Your task to perform on an android device: Clear all items from cart on ebay.com. Image 0: 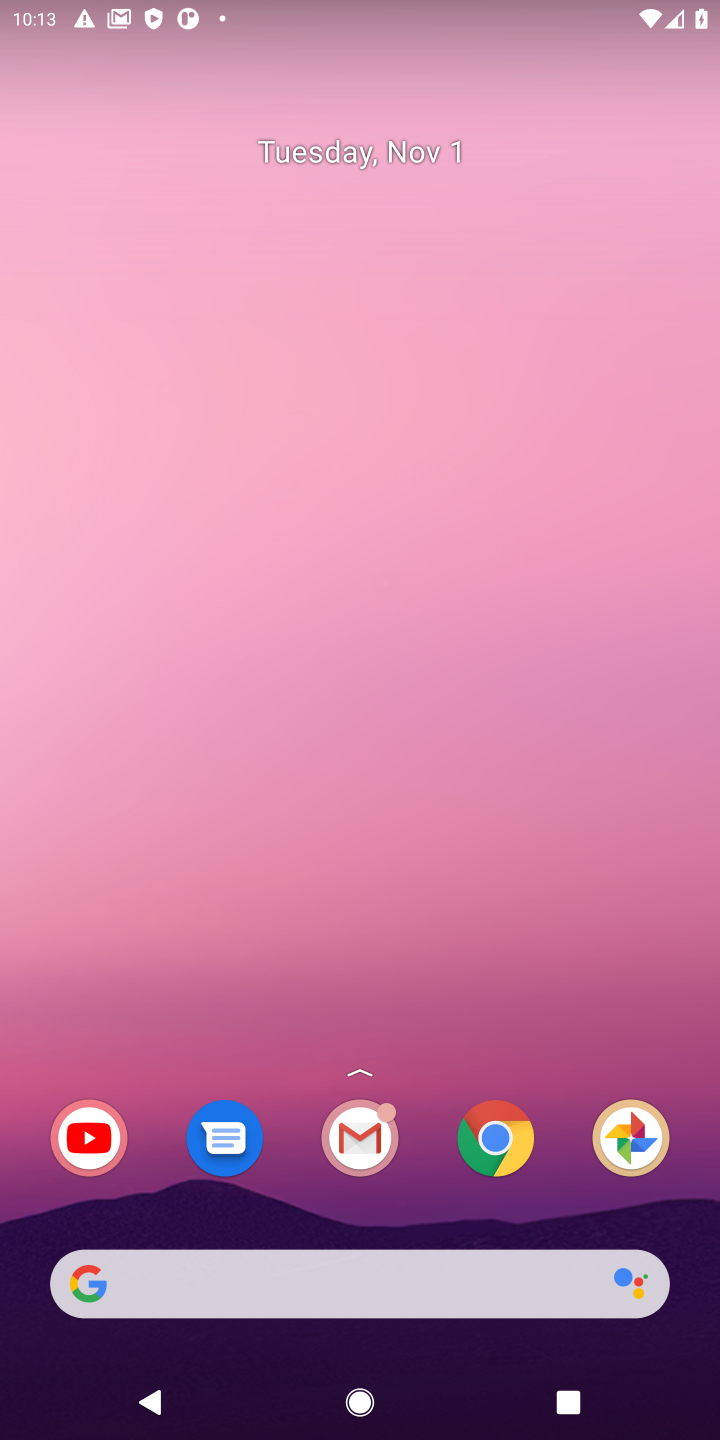
Step 0: click (518, 1145)
Your task to perform on an android device: Clear all items from cart on ebay.com. Image 1: 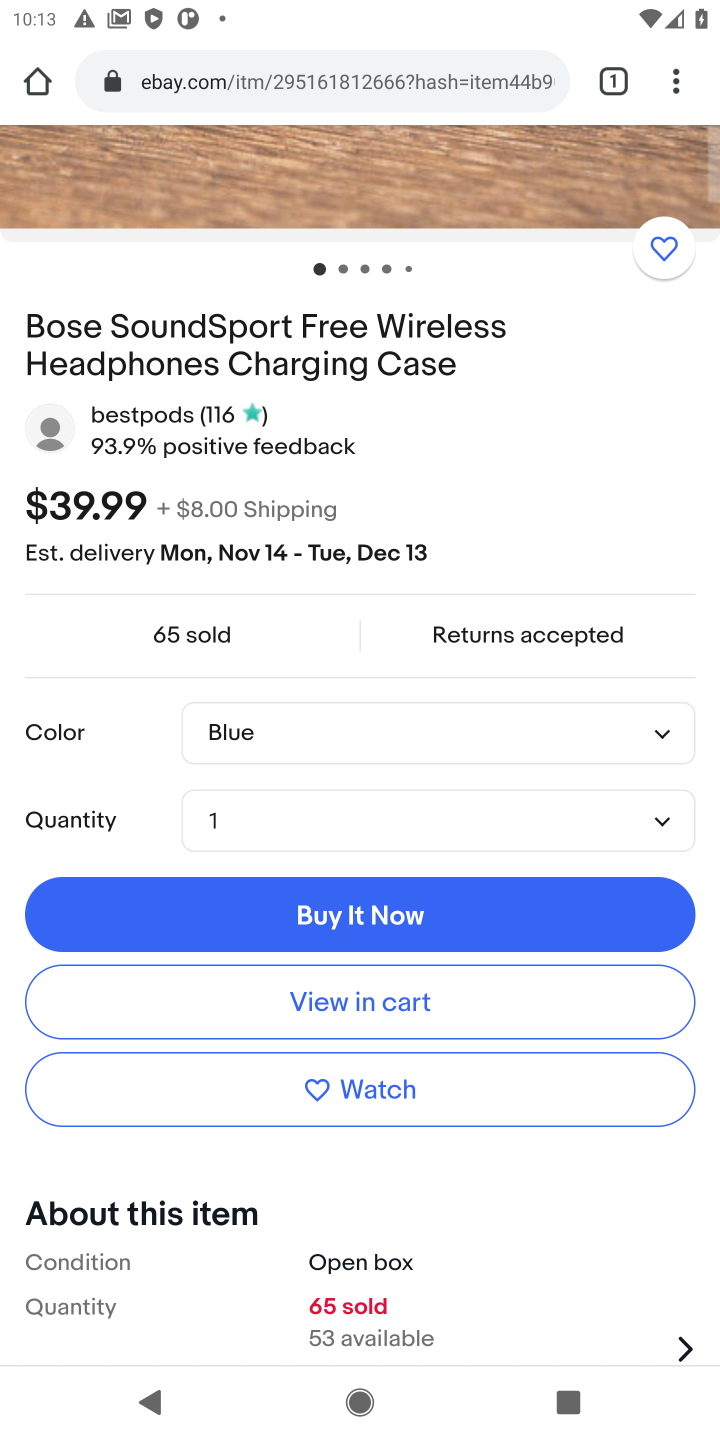
Step 1: click (324, 77)
Your task to perform on an android device: Clear all items from cart on ebay.com. Image 2: 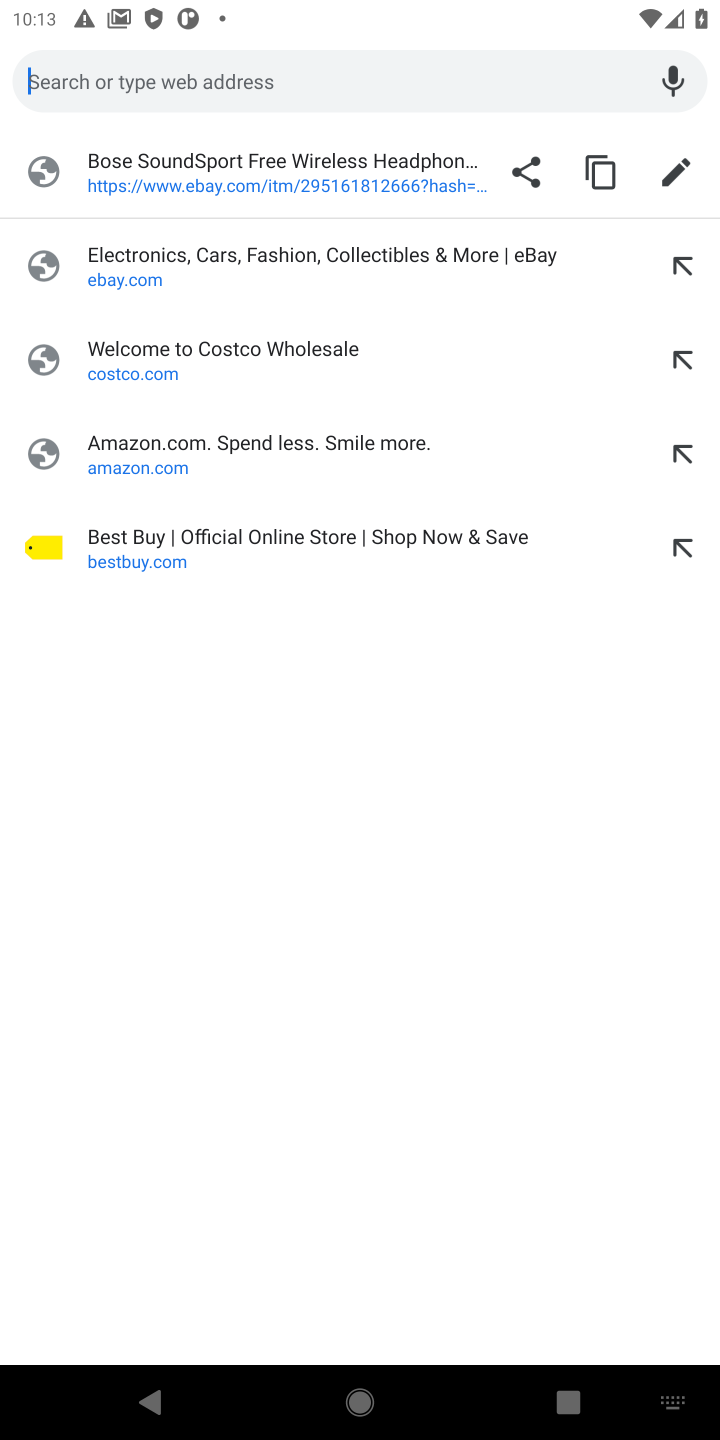
Step 2: click (147, 266)
Your task to perform on an android device: Clear all items from cart on ebay.com. Image 3: 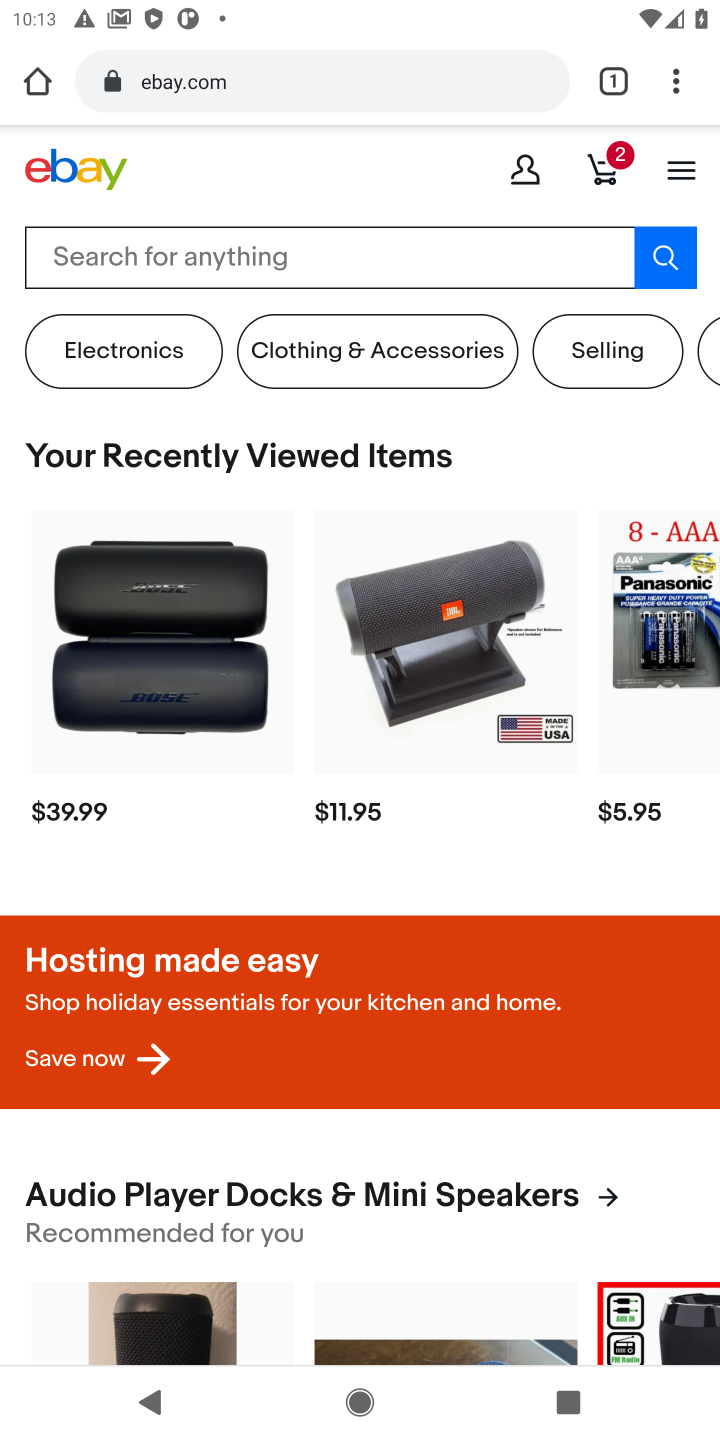
Step 3: click (606, 177)
Your task to perform on an android device: Clear all items from cart on ebay.com. Image 4: 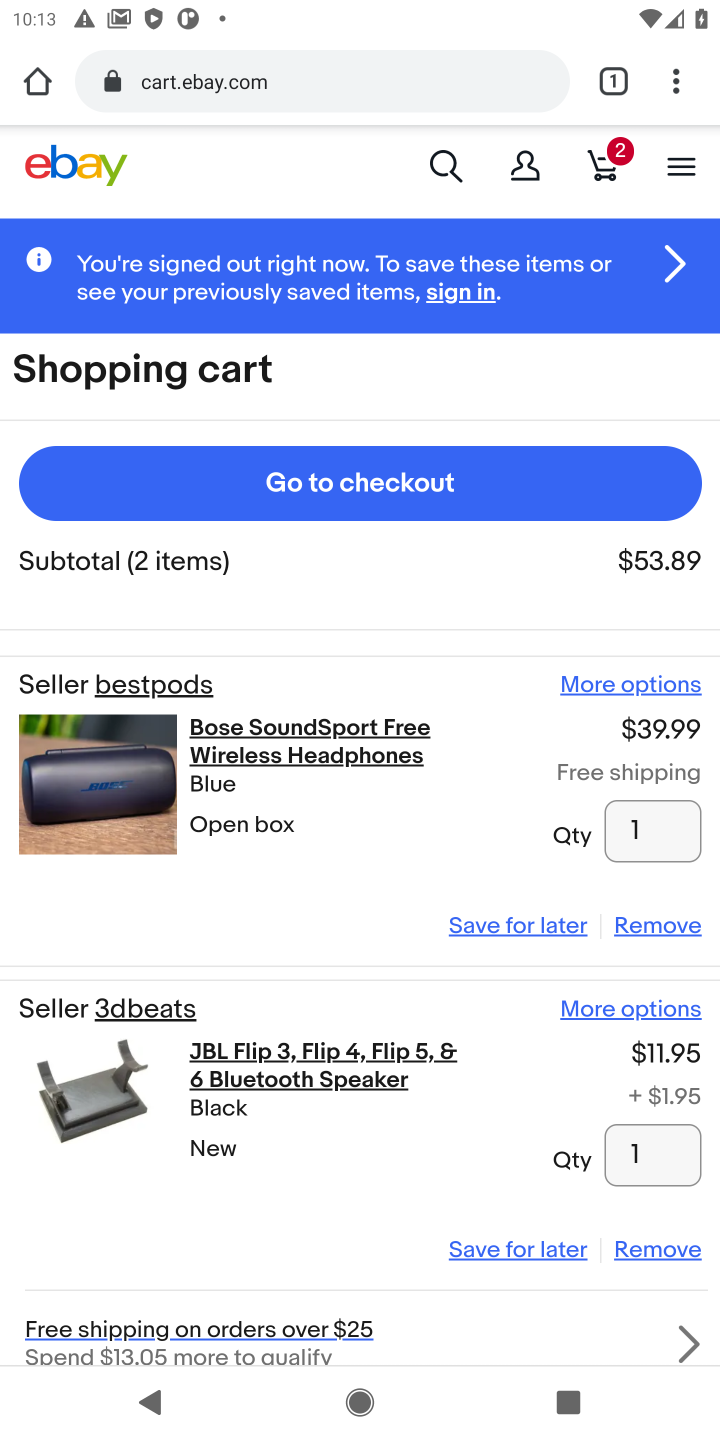
Step 4: click (641, 932)
Your task to perform on an android device: Clear all items from cart on ebay.com. Image 5: 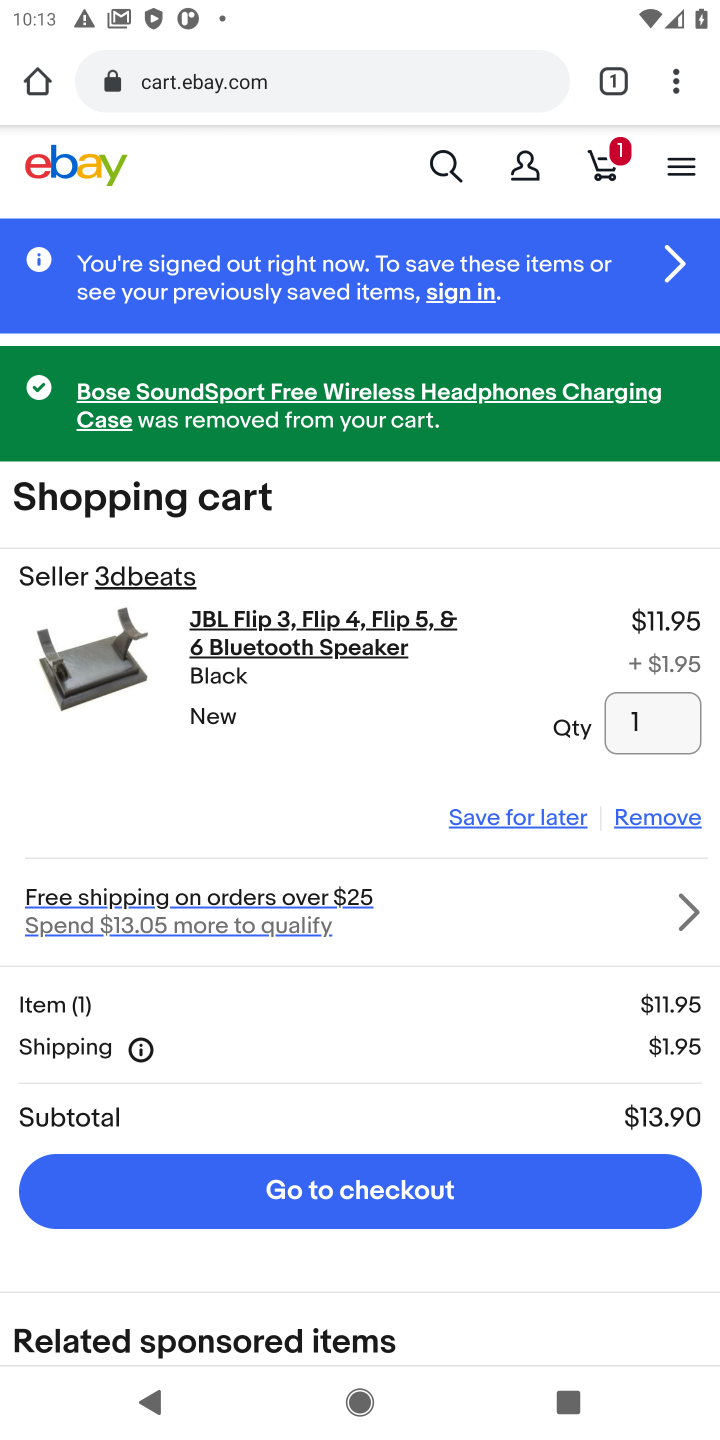
Step 5: click (667, 824)
Your task to perform on an android device: Clear all items from cart on ebay.com. Image 6: 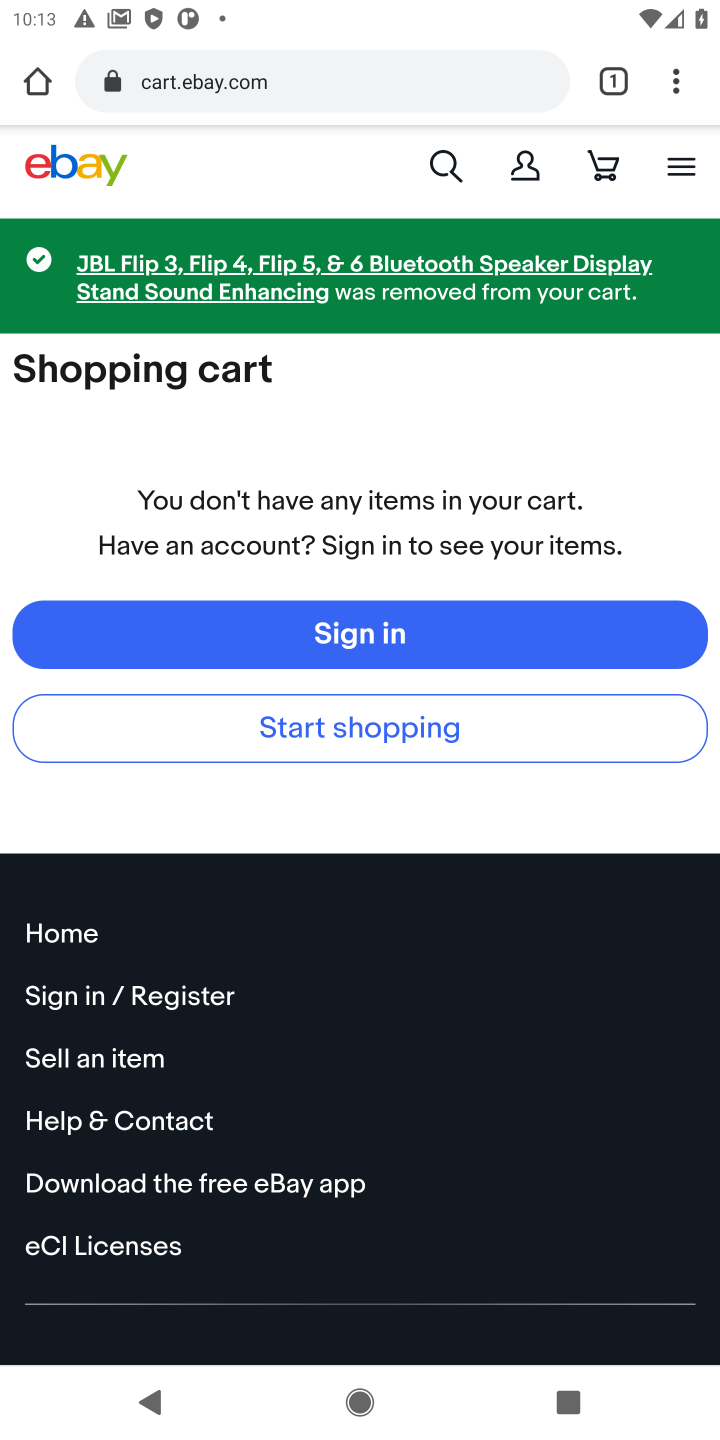
Step 6: task complete